Your task to perform on an android device: all mails in gmail Image 0: 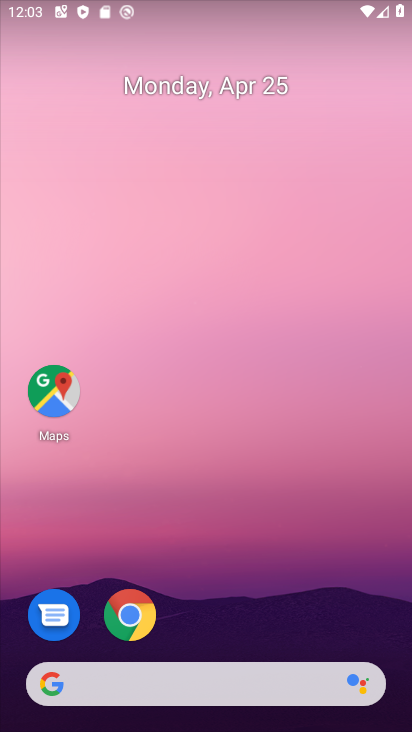
Step 0: drag from (344, 611) to (374, 90)
Your task to perform on an android device: all mails in gmail Image 1: 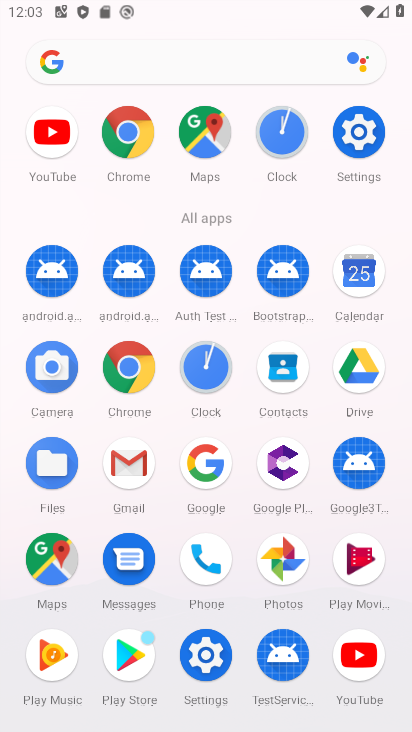
Step 1: click (134, 471)
Your task to perform on an android device: all mails in gmail Image 2: 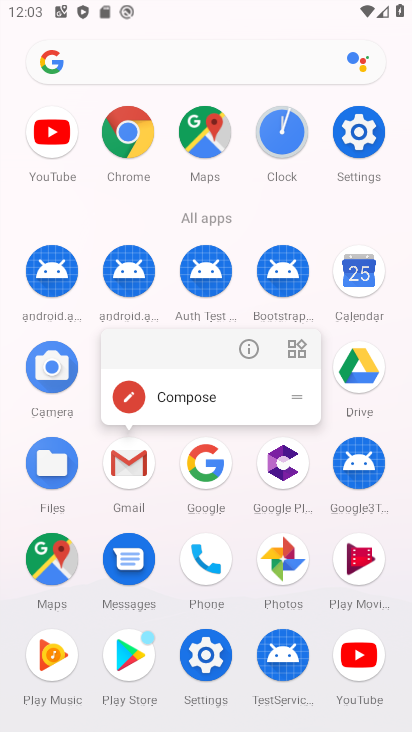
Step 2: click (126, 463)
Your task to perform on an android device: all mails in gmail Image 3: 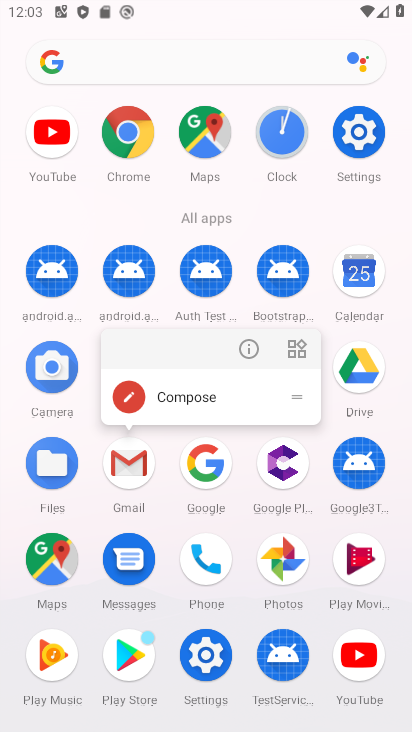
Step 3: click (123, 469)
Your task to perform on an android device: all mails in gmail Image 4: 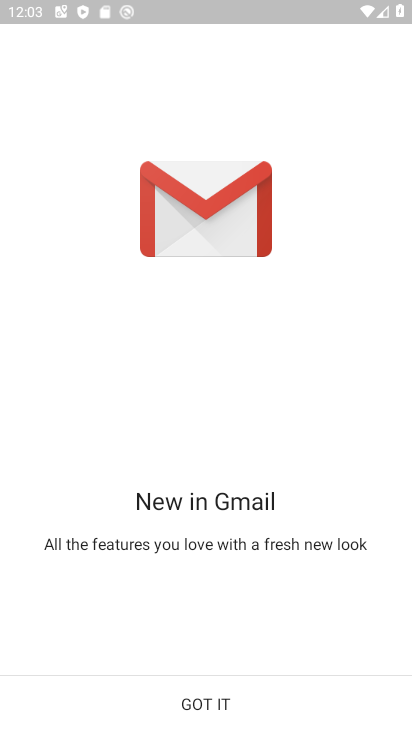
Step 4: click (242, 699)
Your task to perform on an android device: all mails in gmail Image 5: 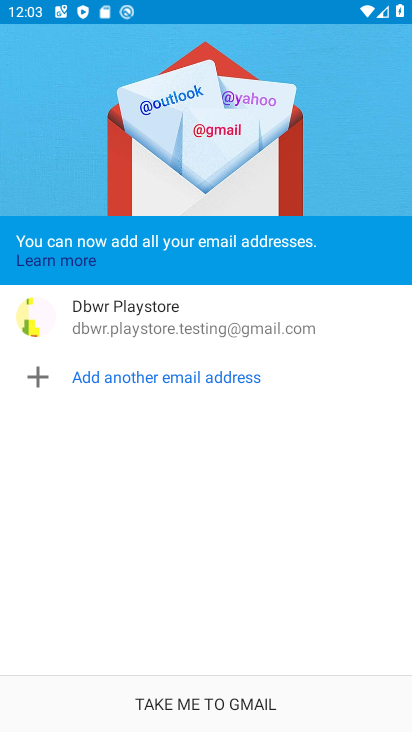
Step 5: click (242, 699)
Your task to perform on an android device: all mails in gmail Image 6: 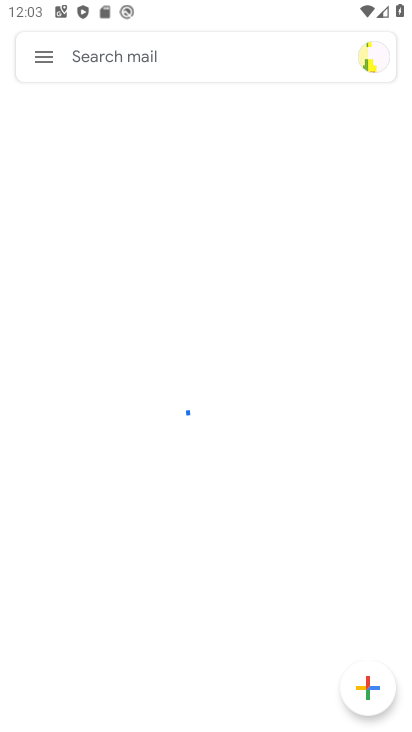
Step 6: click (38, 57)
Your task to perform on an android device: all mails in gmail Image 7: 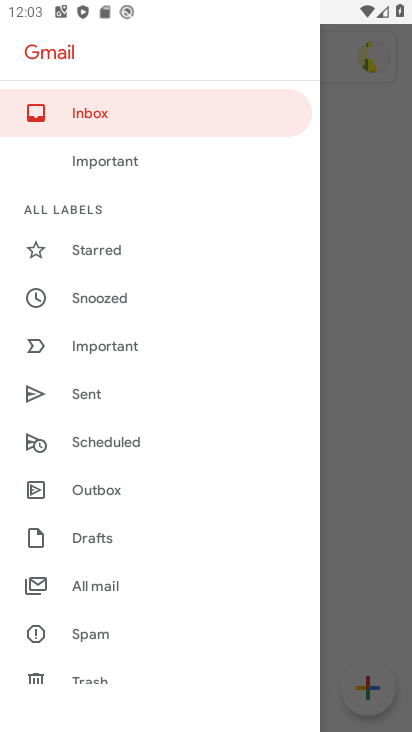
Step 7: click (119, 583)
Your task to perform on an android device: all mails in gmail Image 8: 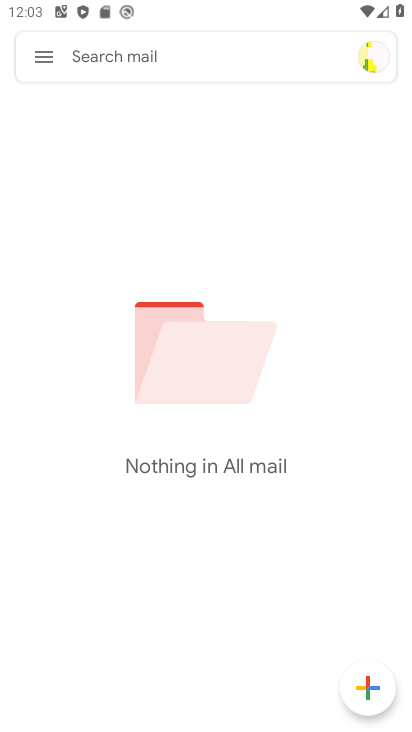
Step 8: task complete